Your task to perform on an android device: turn off notifications in google photos Image 0: 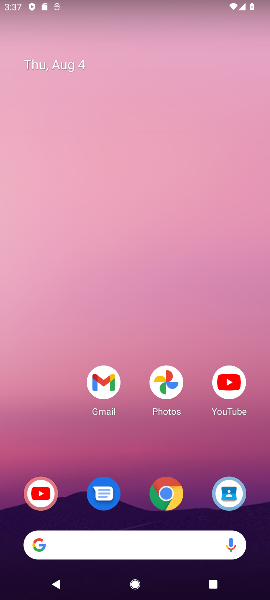
Step 0: drag from (102, 531) to (173, 217)
Your task to perform on an android device: turn off notifications in google photos Image 1: 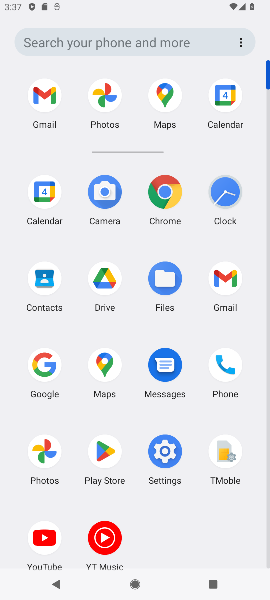
Step 1: click (34, 447)
Your task to perform on an android device: turn off notifications in google photos Image 2: 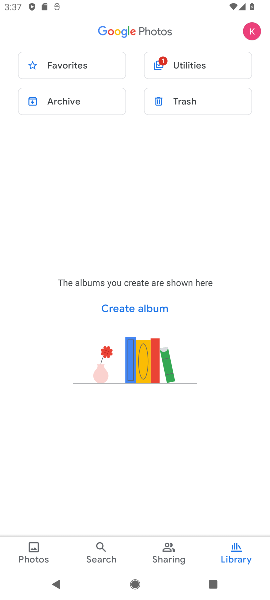
Step 2: click (261, 24)
Your task to perform on an android device: turn off notifications in google photos Image 3: 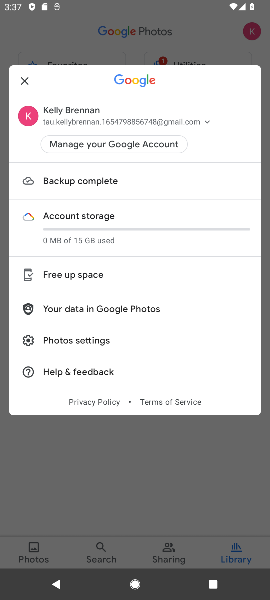
Step 3: click (77, 333)
Your task to perform on an android device: turn off notifications in google photos Image 4: 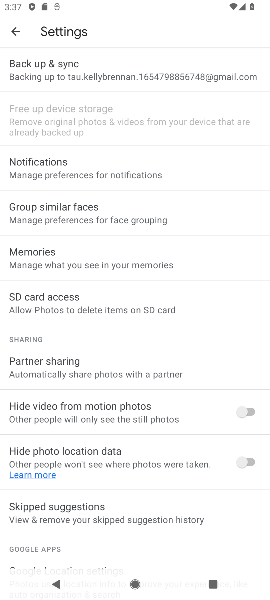
Step 4: click (56, 168)
Your task to perform on an android device: turn off notifications in google photos Image 5: 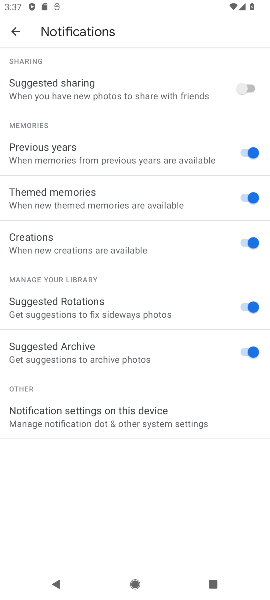
Step 5: click (78, 413)
Your task to perform on an android device: turn off notifications in google photos Image 6: 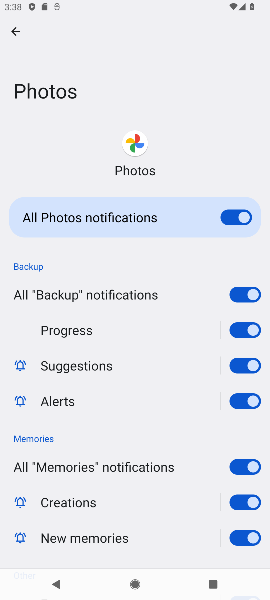
Step 6: click (233, 209)
Your task to perform on an android device: turn off notifications in google photos Image 7: 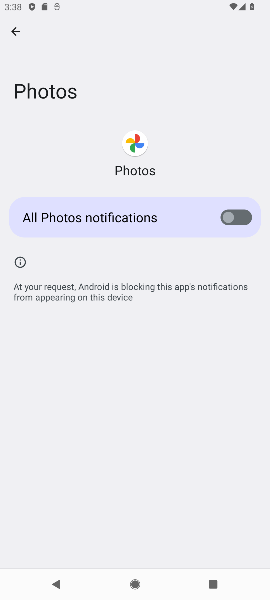
Step 7: task complete